Your task to perform on an android device: open chrome and create a bookmark for the current page Image 0: 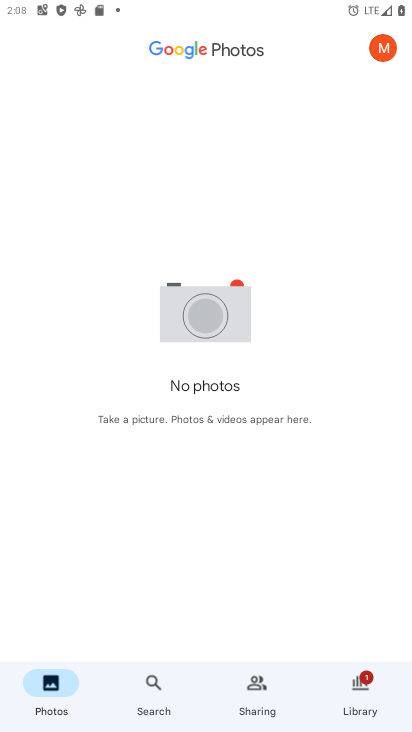
Step 0: press home button
Your task to perform on an android device: open chrome and create a bookmark for the current page Image 1: 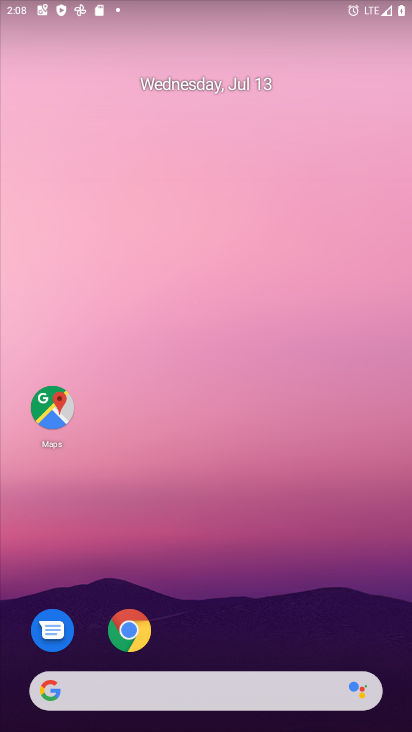
Step 1: drag from (391, 702) to (56, 152)
Your task to perform on an android device: open chrome and create a bookmark for the current page Image 2: 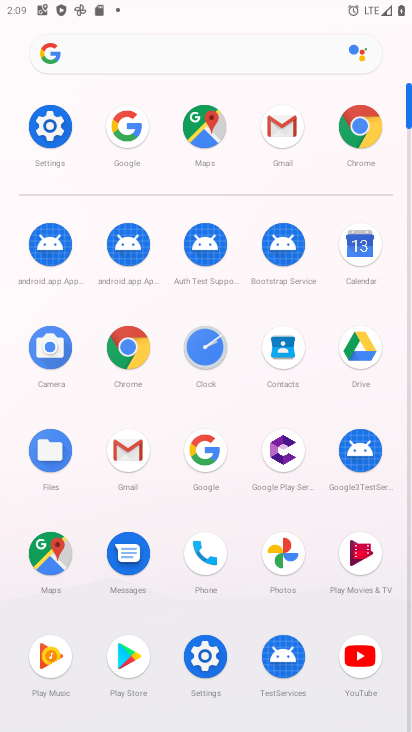
Step 2: click (125, 360)
Your task to perform on an android device: open chrome and create a bookmark for the current page Image 3: 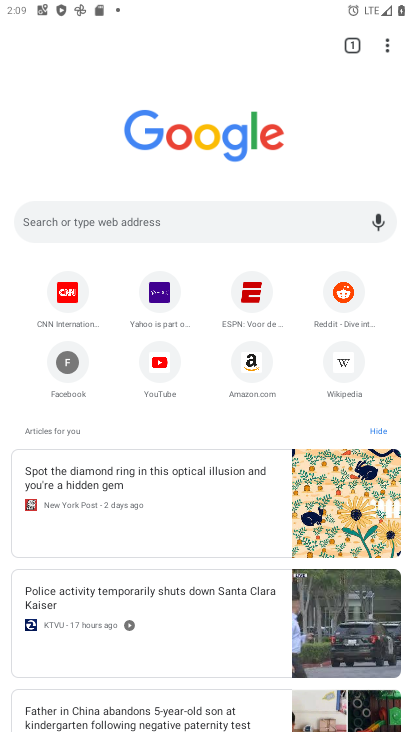
Step 3: click (389, 51)
Your task to perform on an android device: open chrome and create a bookmark for the current page Image 4: 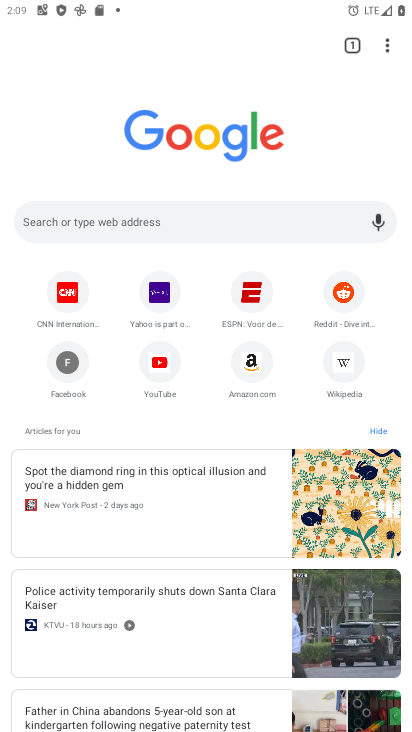
Step 4: click (389, 51)
Your task to perform on an android device: open chrome and create a bookmark for the current page Image 5: 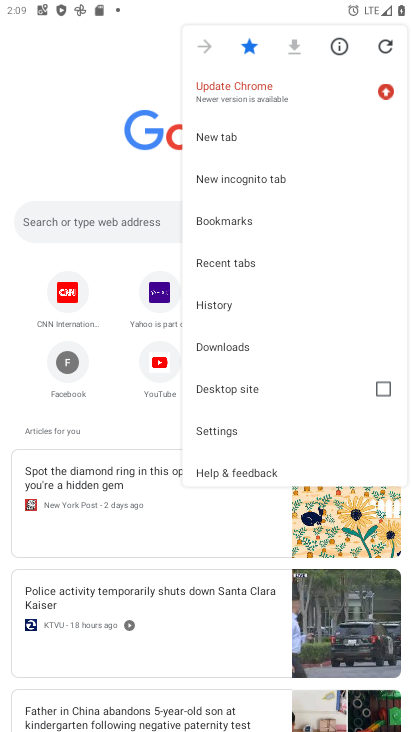
Step 5: task complete